Your task to perform on an android device: turn off location history Image 0: 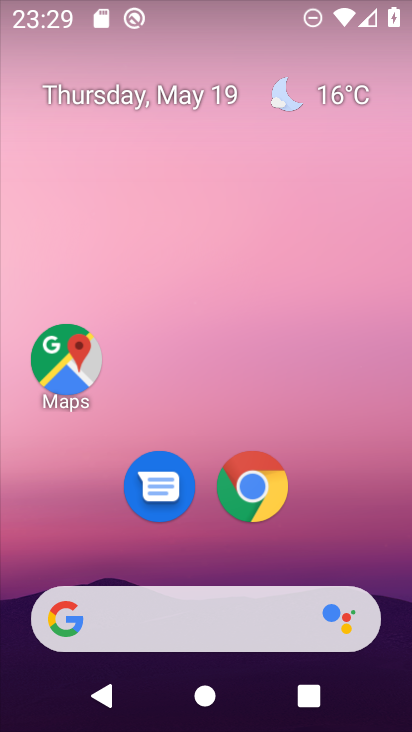
Step 0: drag from (373, 557) to (295, 126)
Your task to perform on an android device: turn off location history Image 1: 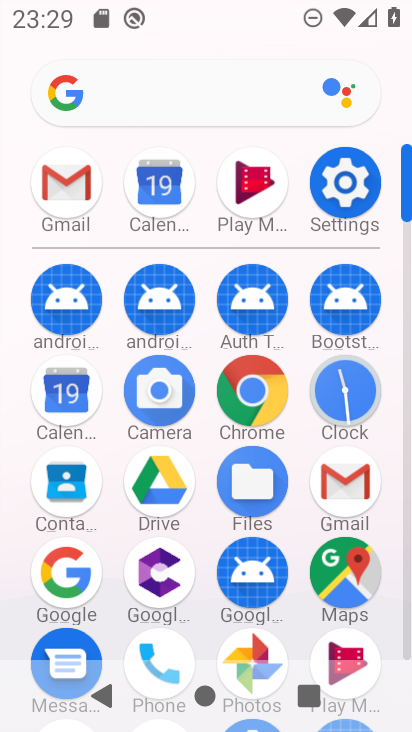
Step 1: click (337, 214)
Your task to perform on an android device: turn off location history Image 2: 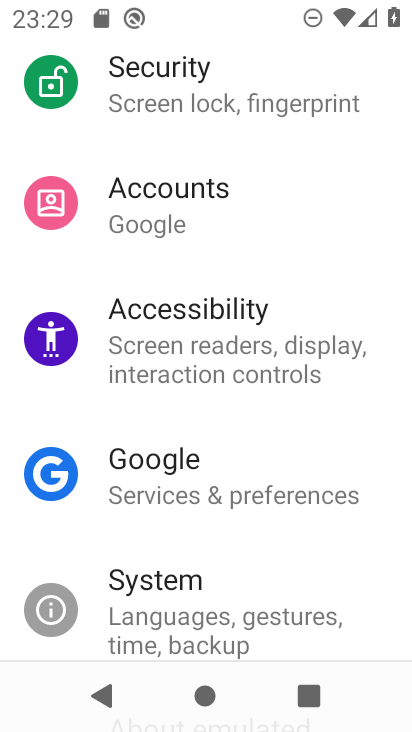
Step 2: drag from (267, 294) to (264, 553)
Your task to perform on an android device: turn off location history Image 3: 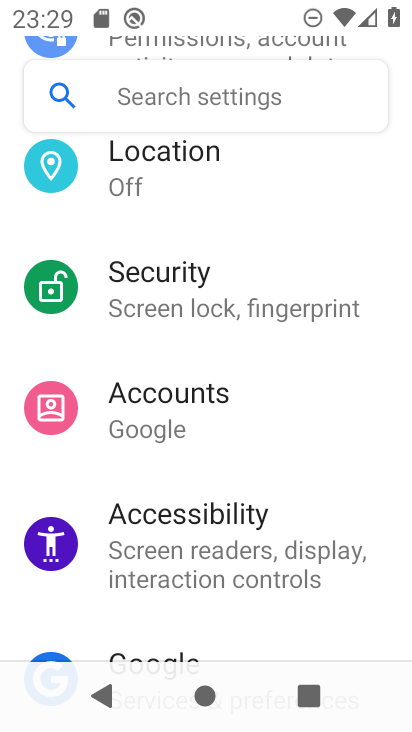
Step 3: click (217, 163)
Your task to perform on an android device: turn off location history Image 4: 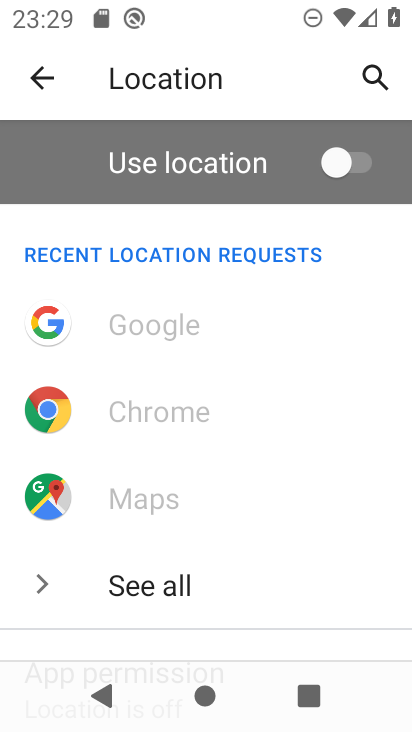
Step 4: task complete